Your task to perform on an android device: check android version Image 0: 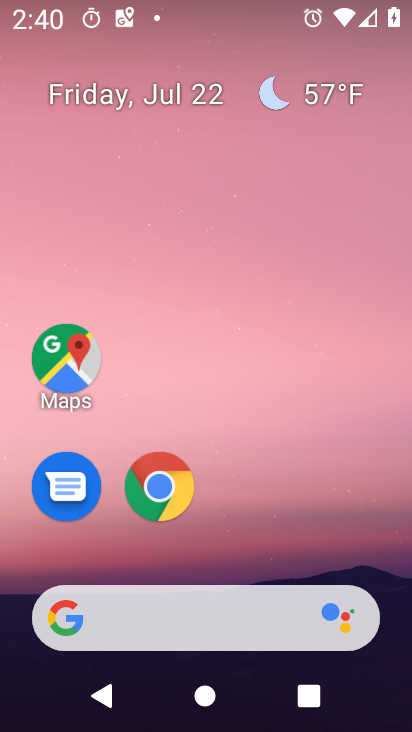
Step 0: press home button
Your task to perform on an android device: check android version Image 1: 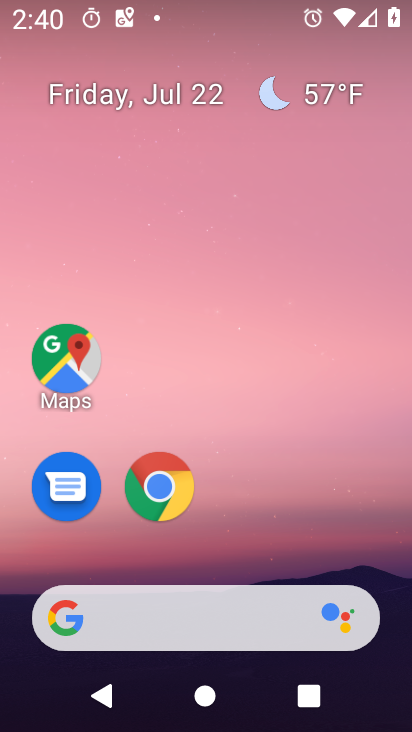
Step 1: drag from (371, 519) to (371, 104)
Your task to perform on an android device: check android version Image 2: 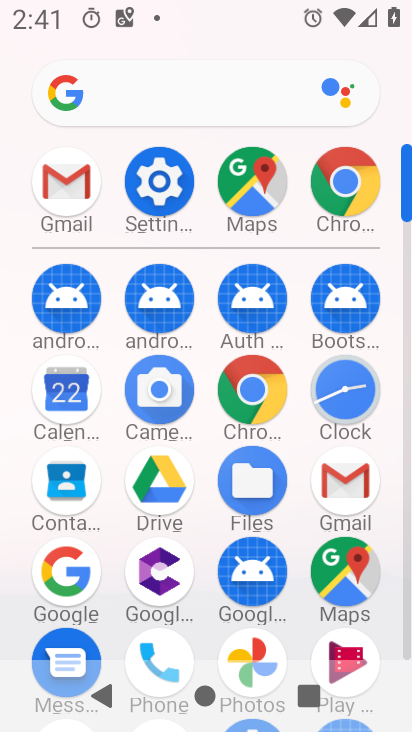
Step 2: click (160, 202)
Your task to perform on an android device: check android version Image 3: 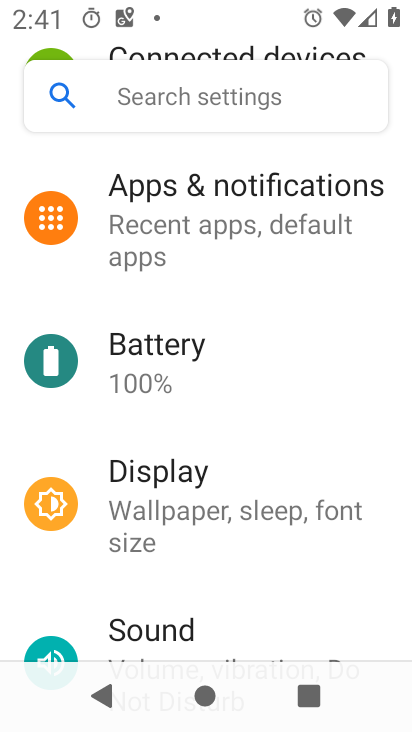
Step 3: drag from (373, 397) to (371, 332)
Your task to perform on an android device: check android version Image 4: 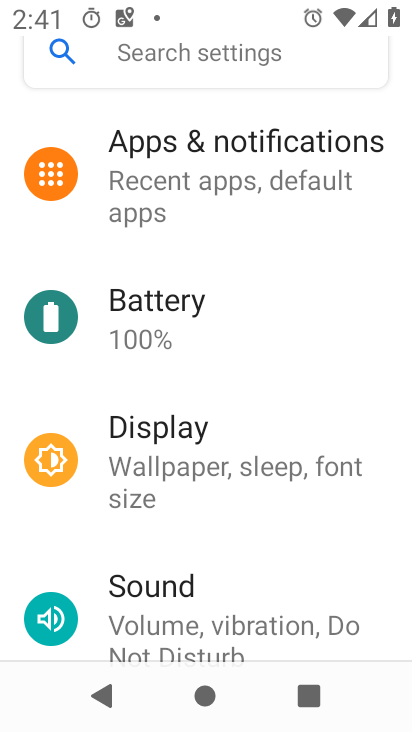
Step 4: drag from (382, 504) to (386, 428)
Your task to perform on an android device: check android version Image 5: 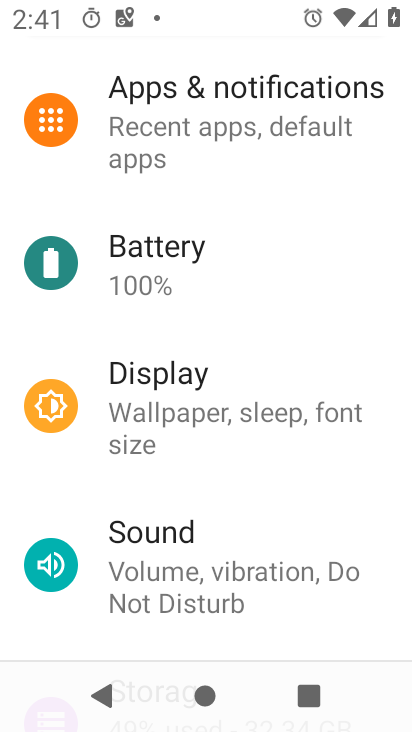
Step 5: drag from (373, 493) to (378, 414)
Your task to perform on an android device: check android version Image 6: 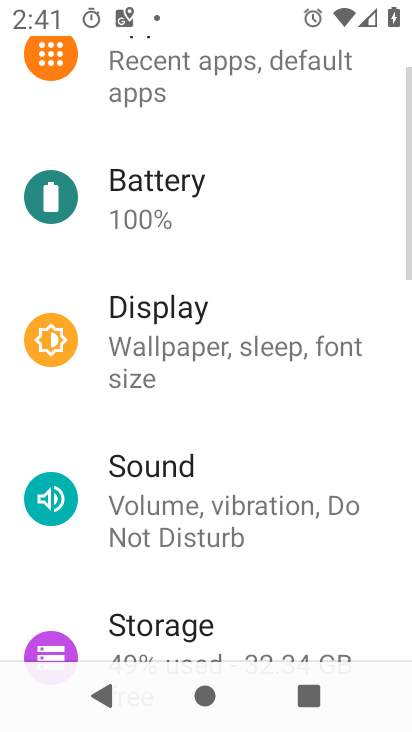
Step 6: drag from (359, 549) to (360, 457)
Your task to perform on an android device: check android version Image 7: 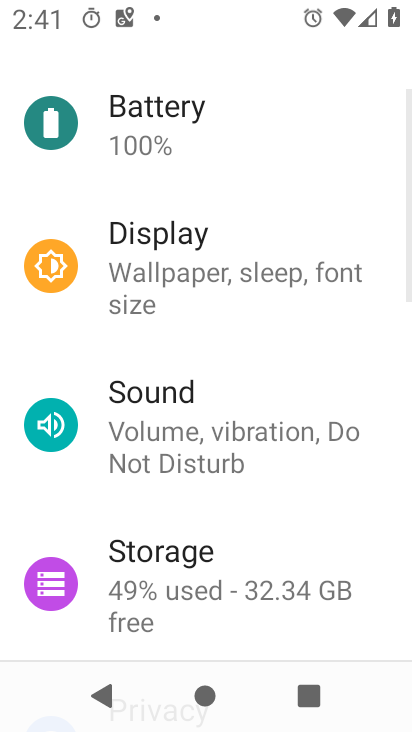
Step 7: drag from (359, 542) to (362, 472)
Your task to perform on an android device: check android version Image 8: 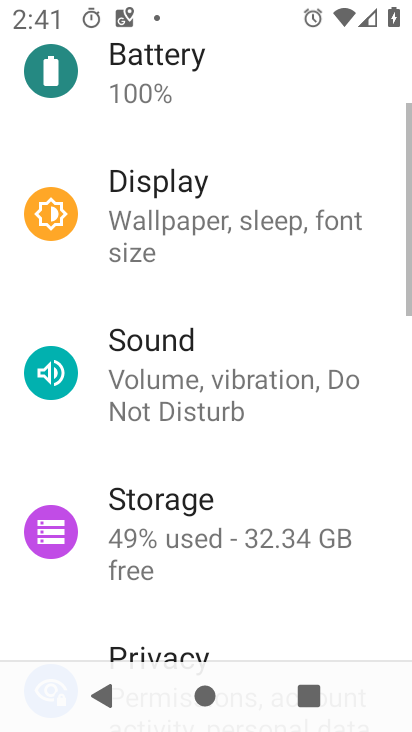
Step 8: drag from (359, 576) to (359, 496)
Your task to perform on an android device: check android version Image 9: 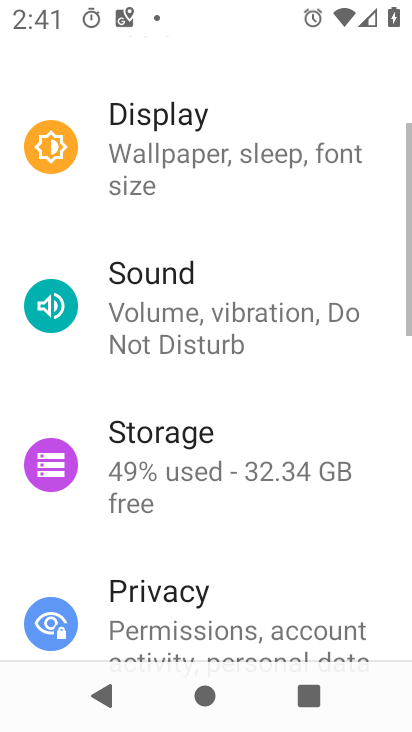
Step 9: drag from (353, 575) to (364, 498)
Your task to perform on an android device: check android version Image 10: 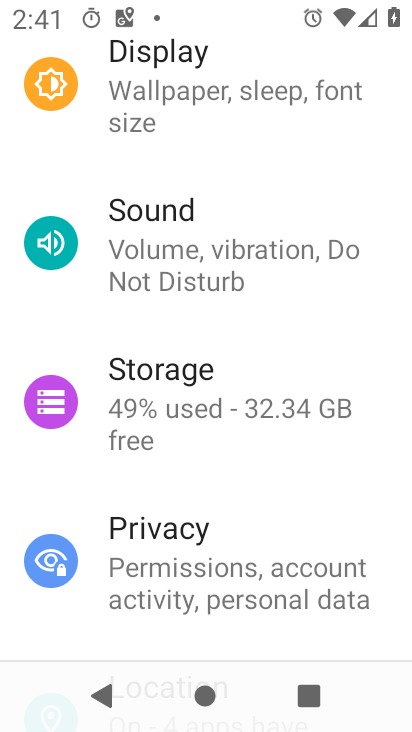
Step 10: drag from (366, 605) to (364, 523)
Your task to perform on an android device: check android version Image 11: 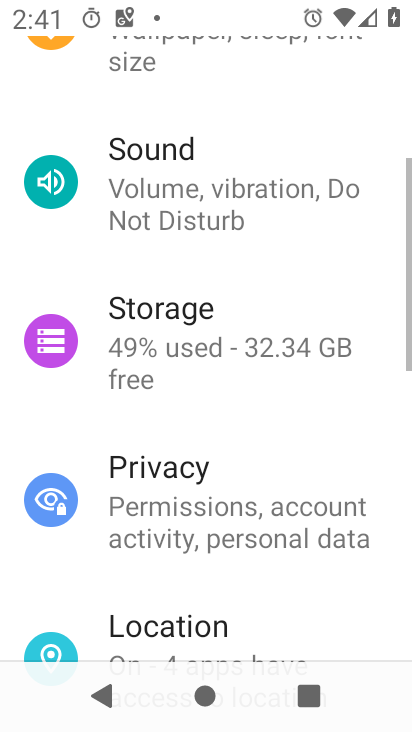
Step 11: drag from (356, 606) to (354, 515)
Your task to perform on an android device: check android version Image 12: 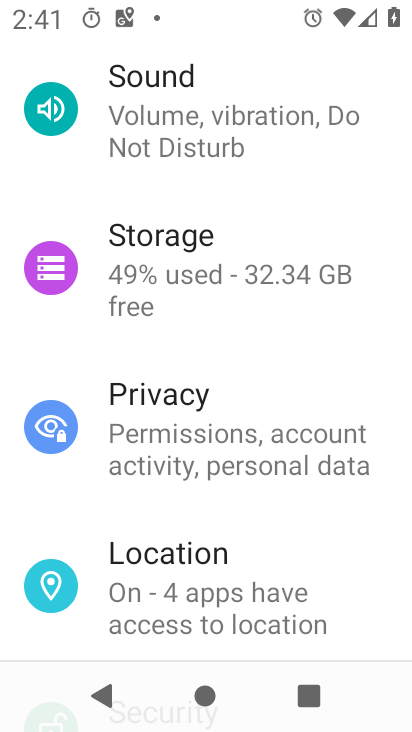
Step 12: drag from (354, 601) to (358, 519)
Your task to perform on an android device: check android version Image 13: 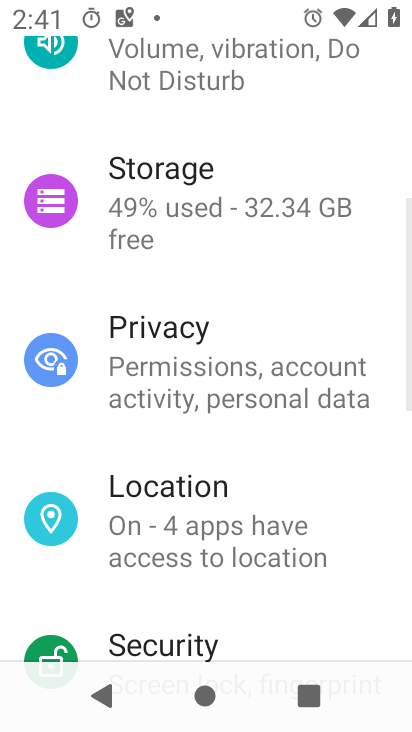
Step 13: drag from (358, 588) to (373, 541)
Your task to perform on an android device: check android version Image 14: 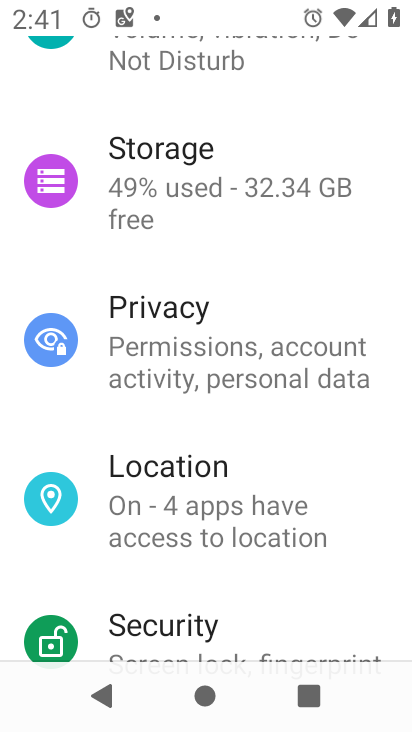
Step 14: drag from (350, 598) to (356, 551)
Your task to perform on an android device: check android version Image 15: 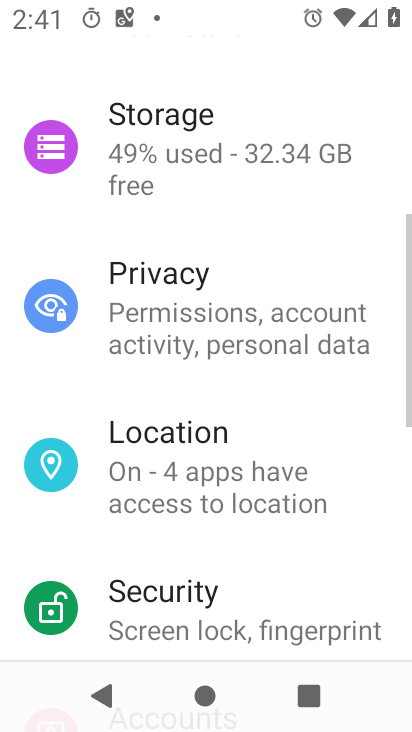
Step 15: drag from (354, 604) to (357, 535)
Your task to perform on an android device: check android version Image 16: 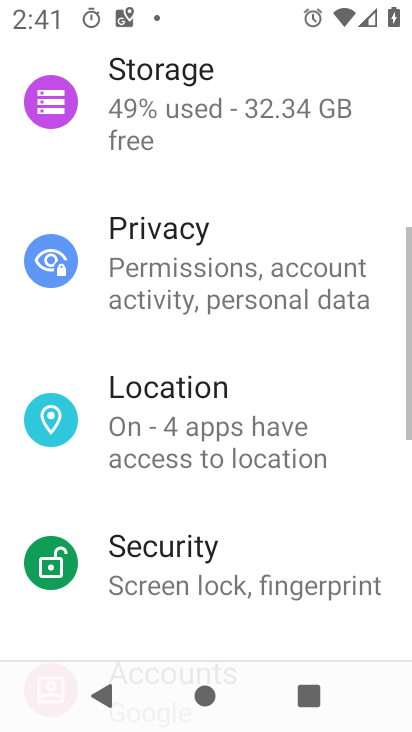
Step 16: drag from (358, 616) to (357, 529)
Your task to perform on an android device: check android version Image 17: 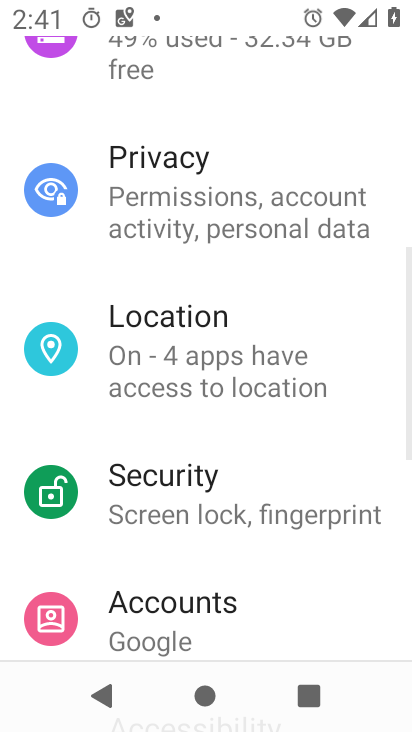
Step 17: drag from (346, 590) to (351, 510)
Your task to perform on an android device: check android version Image 18: 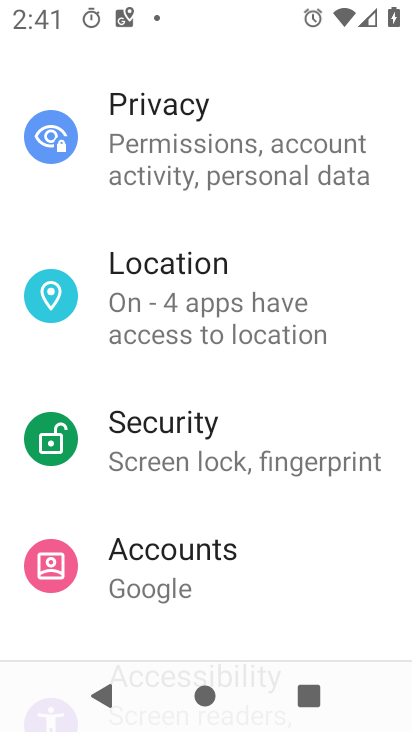
Step 18: drag from (321, 604) to (327, 466)
Your task to perform on an android device: check android version Image 19: 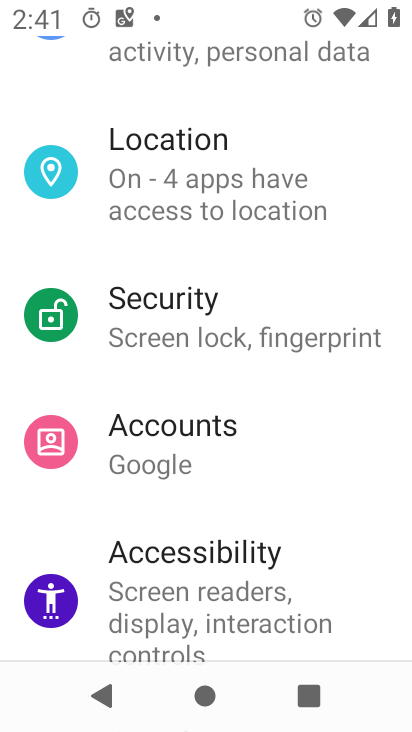
Step 19: drag from (353, 552) to (351, 453)
Your task to perform on an android device: check android version Image 20: 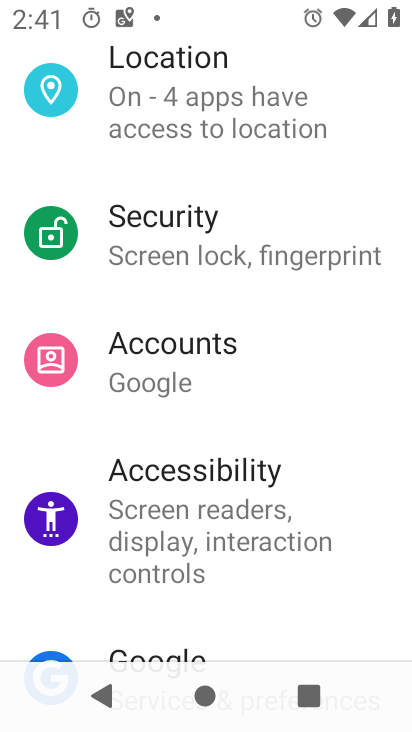
Step 20: drag from (386, 572) to (384, 424)
Your task to perform on an android device: check android version Image 21: 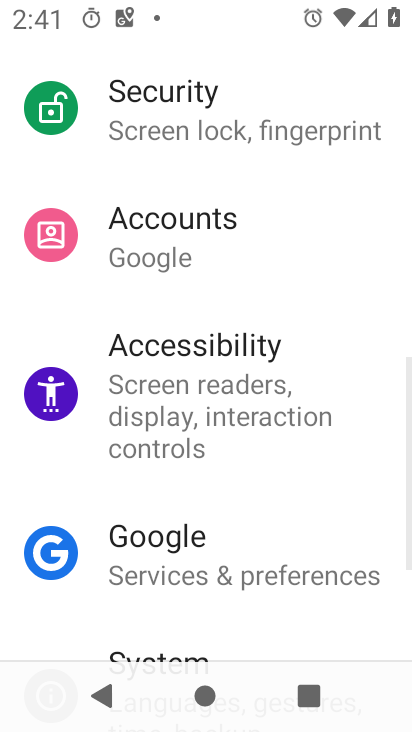
Step 21: drag from (357, 513) to (362, 422)
Your task to perform on an android device: check android version Image 22: 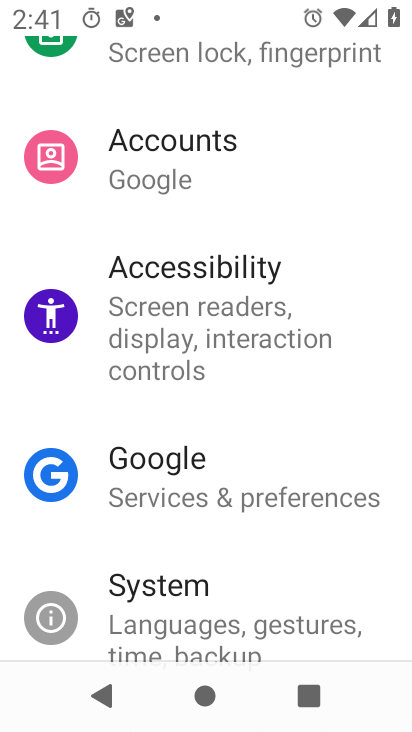
Step 22: click (341, 626)
Your task to perform on an android device: check android version Image 23: 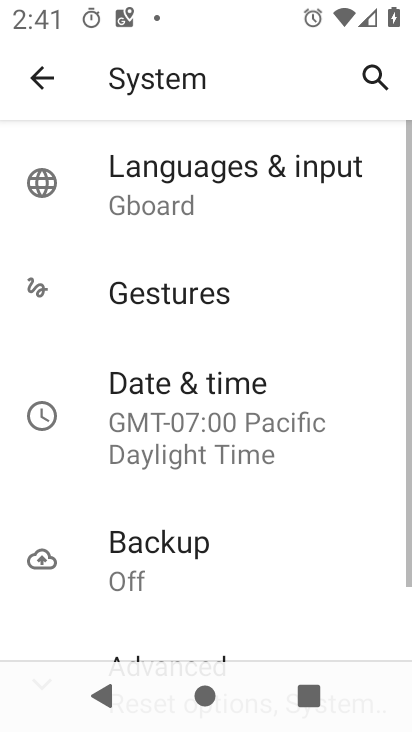
Step 23: drag from (341, 626) to (354, 441)
Your task to perform on an android device: check android version Image 24: 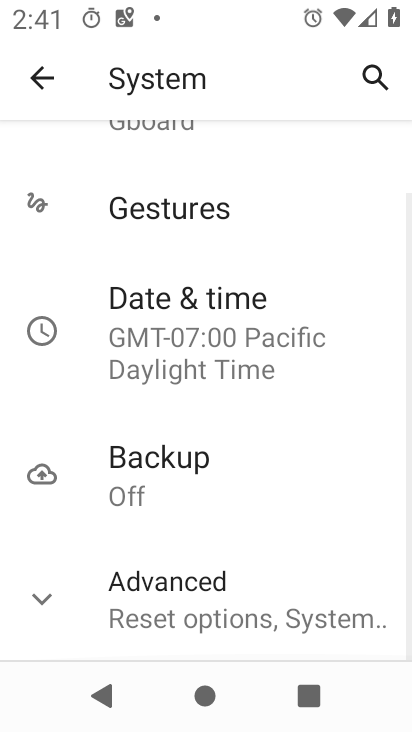
Step 24: click (334, 592)
Your task to perform on an android device: check android version Image 25: 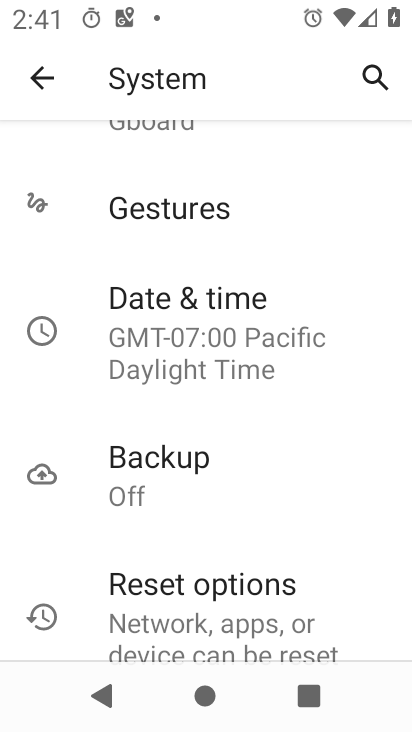
Step 25: drag from (337, 600) to (350, 437)
Your task to perform on an android device: check android version Image 26: 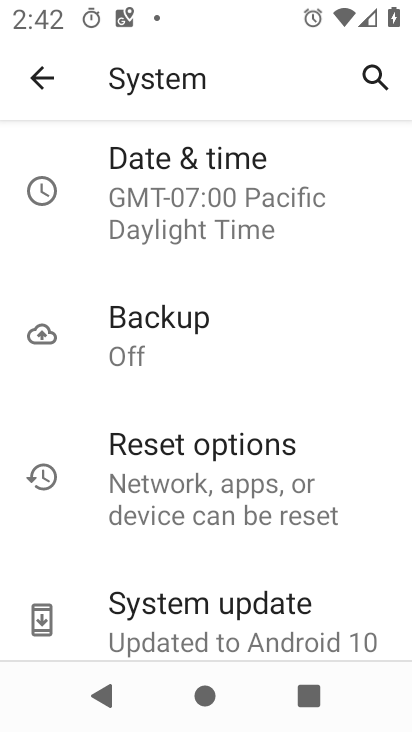
Step 26: click (328, 591)
Your task to perform on an android device: check android version Image 27: 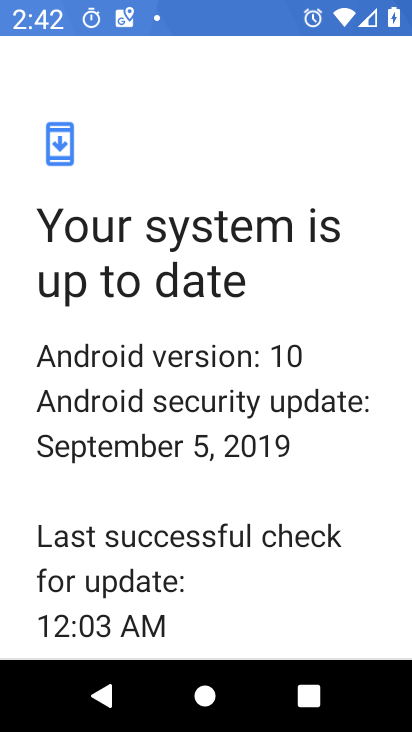
Step 27: task complete